Your task to perform on an android device: Open Chrome and go to the settings page Image 0: 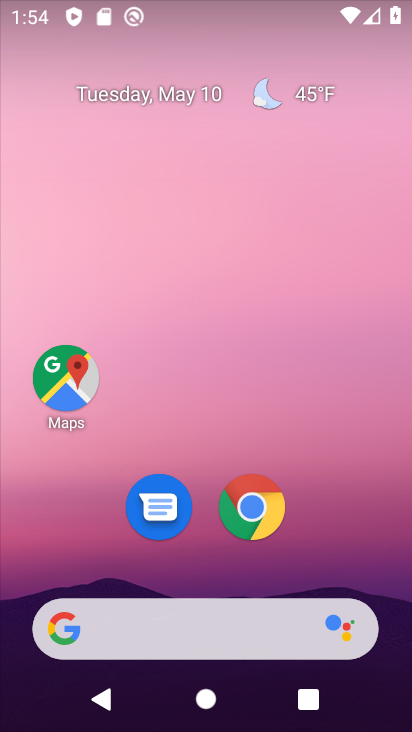
Step 0: click (257, 513)
Your task to perform on an android device: Open Chrome and go to the settings page Image 1: 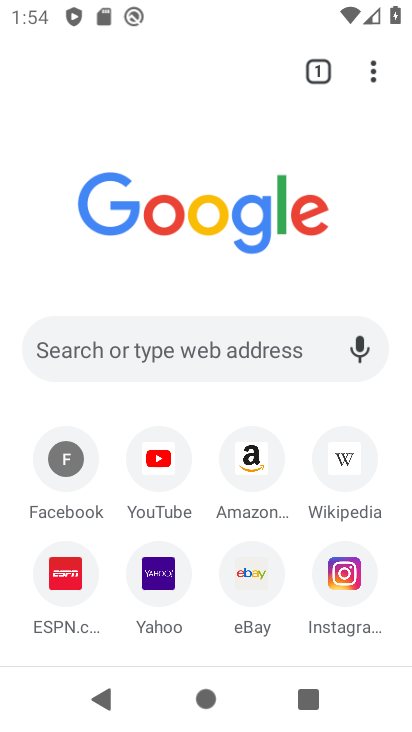
Step 1: task complete